Your task to perform on an android device: turn smart compose on in the gmail app Image 0: 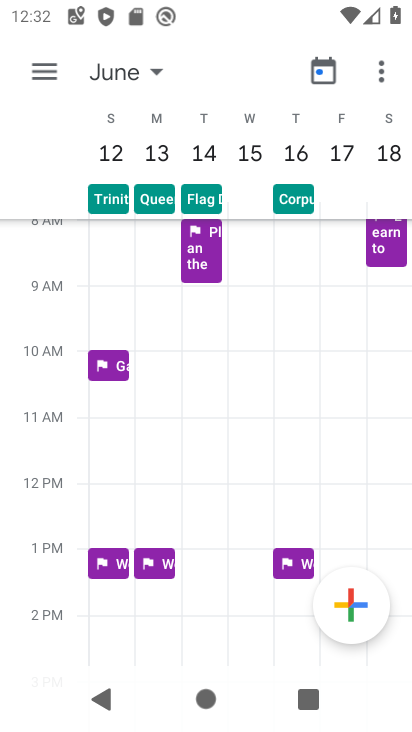
Step 0: press home button
Your task to perform on an android device: turn smart compose on in the gmail app Image 1: 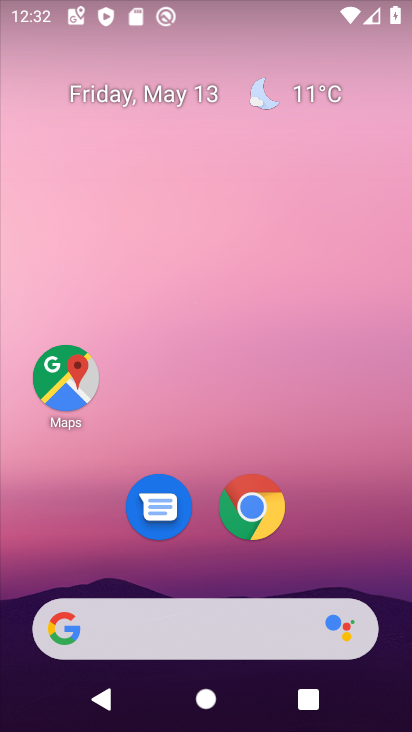
Step 1: drag from (189, 598) to (271, 12)
Your task to perform on an android device: turn smart compose on in the gmail app Image 2: 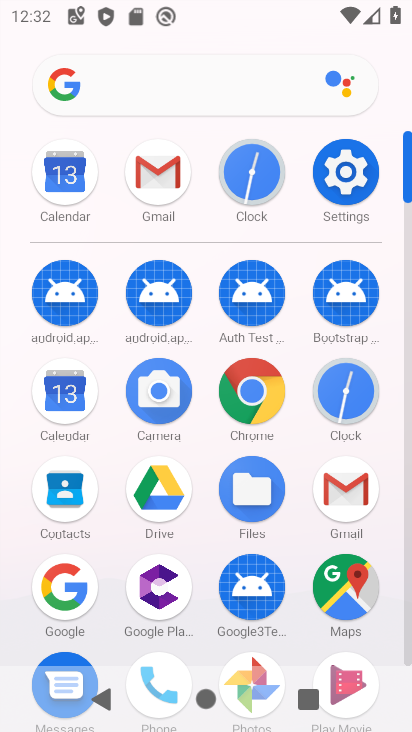
Step 2: click (349, 482)
Your task to perform on an android device: turn smart compose on in the gmail app Image 3: 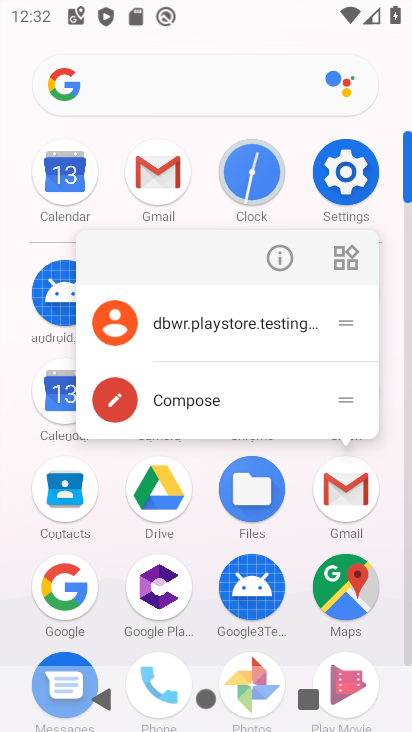
Step 3: click (330, 498)
Your task to perform on an android device: turn smart compose on in the gmail app Image 4: 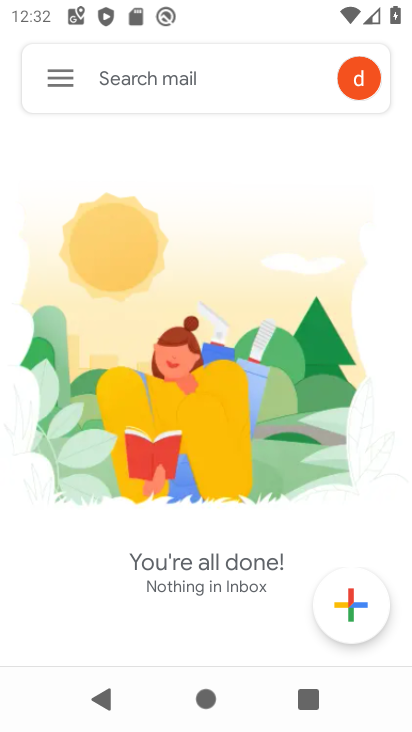
Step 4: click (71, 89)
Your task to perform on an android device: turn smart compose on in the gmail app Image 5: 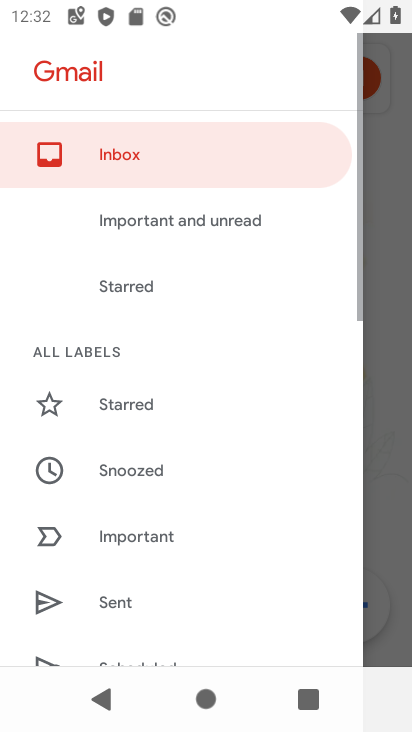
Step 5: drag from (159, 581) to (72, 0)
Your task to perform on an android device: turn smart compose on in the gmail app Image 6: 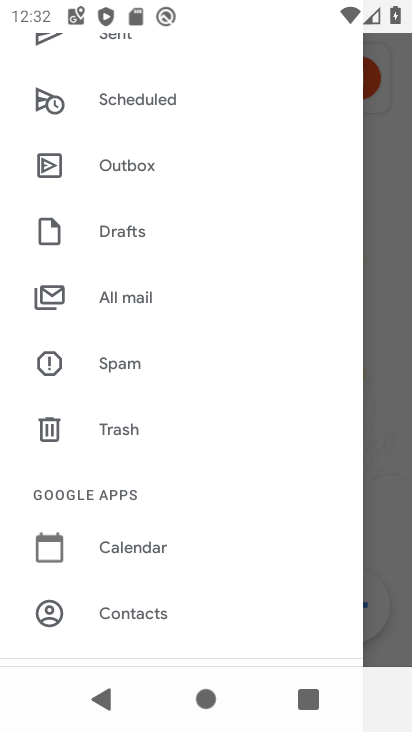
Step 6: drag from (143, 633) to (144, 79)
Your task to perform on an android device: turn smart compose on in the gmail app Image 7: 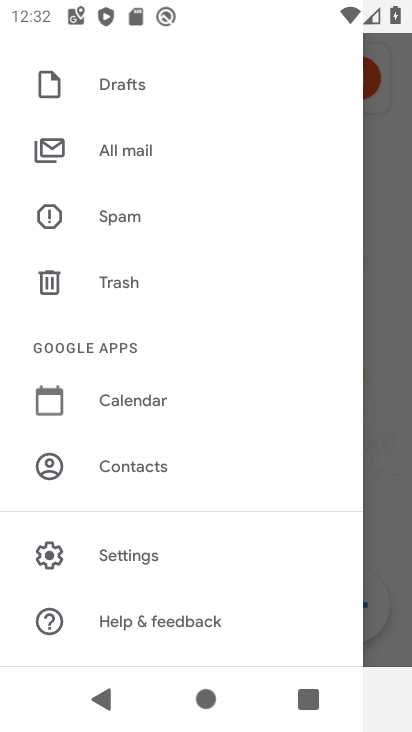
Step 7: click (135, 564)
Your task to perform on an android device: turn smart compose on in the gmail app Image 8: 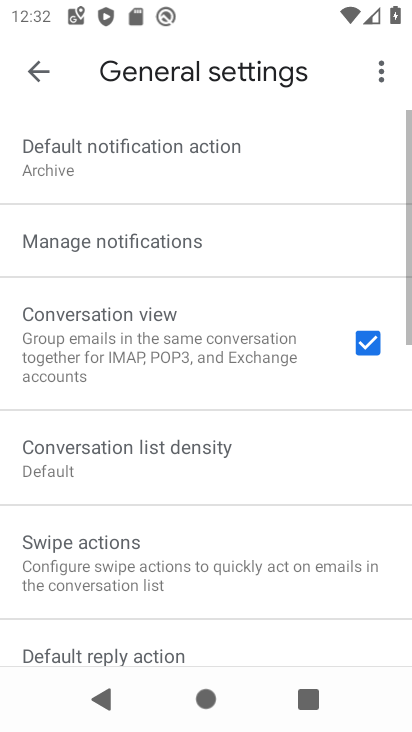
Step 8: drag from (183, 533) to (184, 58)
Your task to perform on an android device: turn smart compose on in the gmail app Image 9: 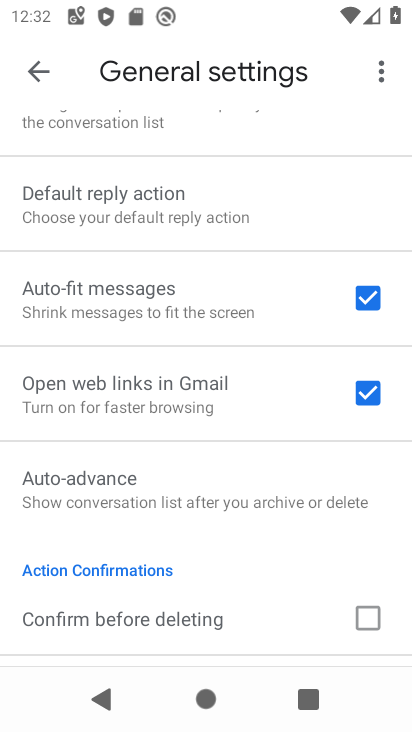
Step 9: click (24, 64)
Your task to perform on an android device: turn smart compose on in the gmail app Image 10: 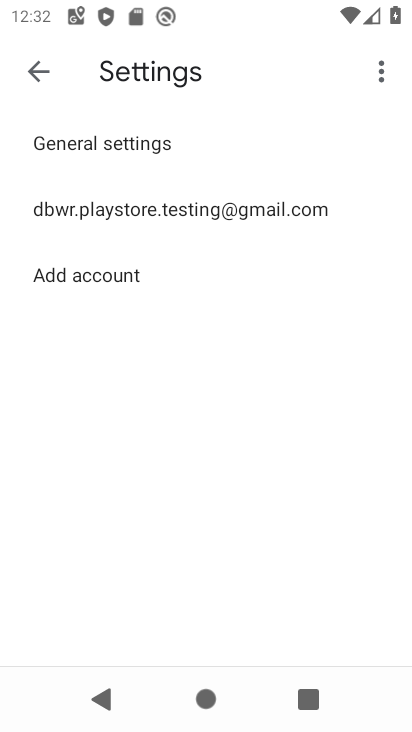
Step 10: click (110, 195)
Your task to perform on an android device: turn smart compose on in the gmail app Image 11: 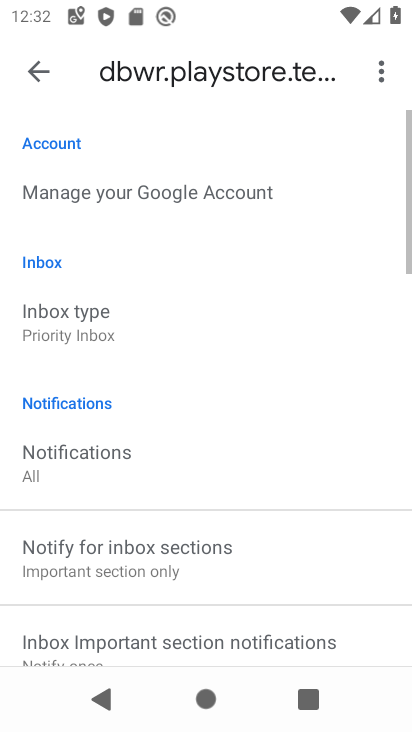
Step 11: task complete